Your task to perform on an android device: Toggle the flashlight Image 0: 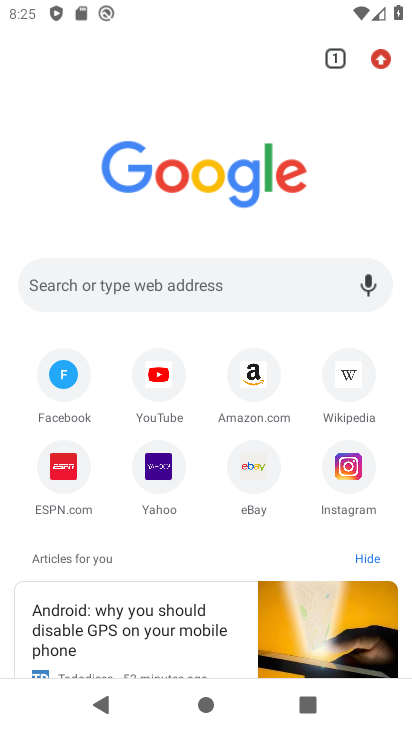
Step 0: drag from (229, 4) to (122, 525)
Your task to perform on an android device: Toggle the flashlight Image 1: 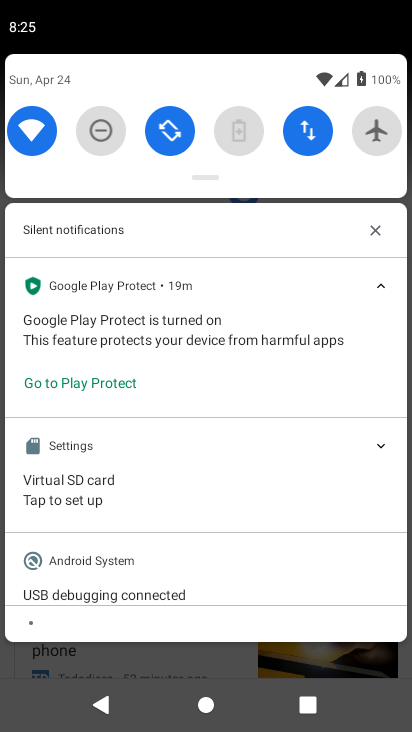
Step 1: task complete